Your task to perform on an android device: change notification settings in the gmail app Image 0: 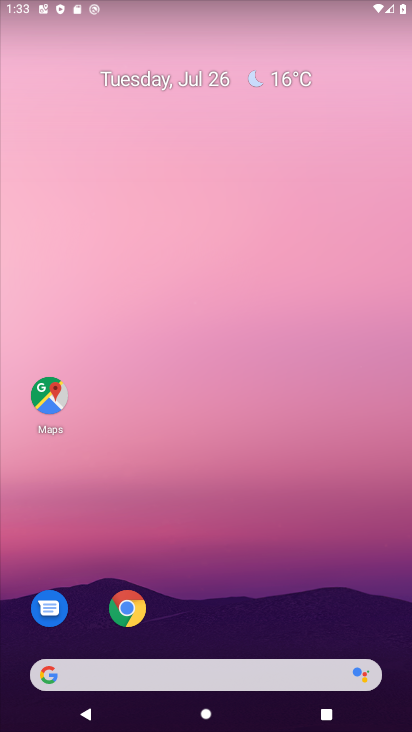
Step 0: drag from (294, 644) to (276, 300)
Your task to perform on an android device: change notification settings in the gmail app Image 1: 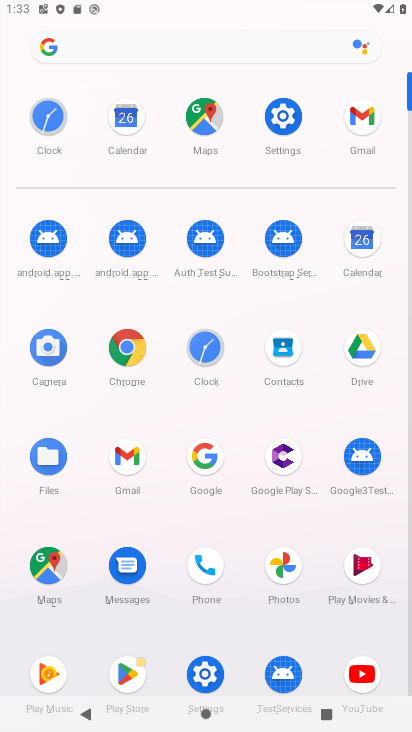
Step 1: click (364, 126)
Your task to perform on an android device: change notification settings in the gmail app Image 2: 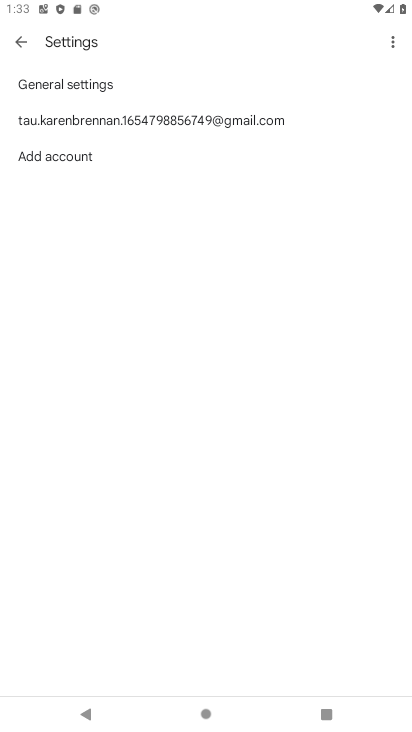
Step 2: click (166, 97)
Your task to perform on an android device: change notification settings in the gmail app Image 3: 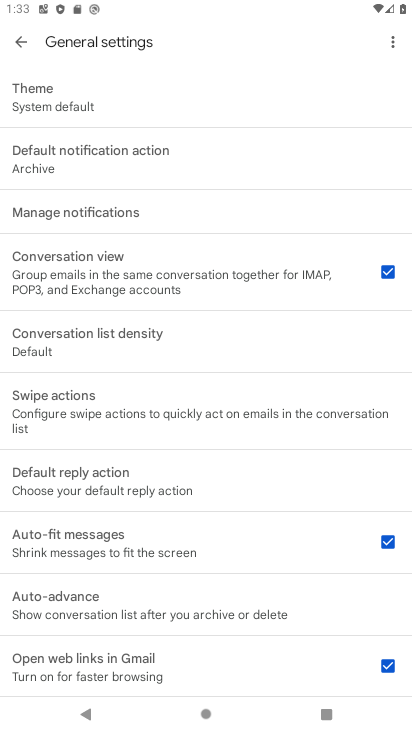
Step 3: task complete